Your task to perform on an android device: What's a good restaurant in New Jersey? Image 0: 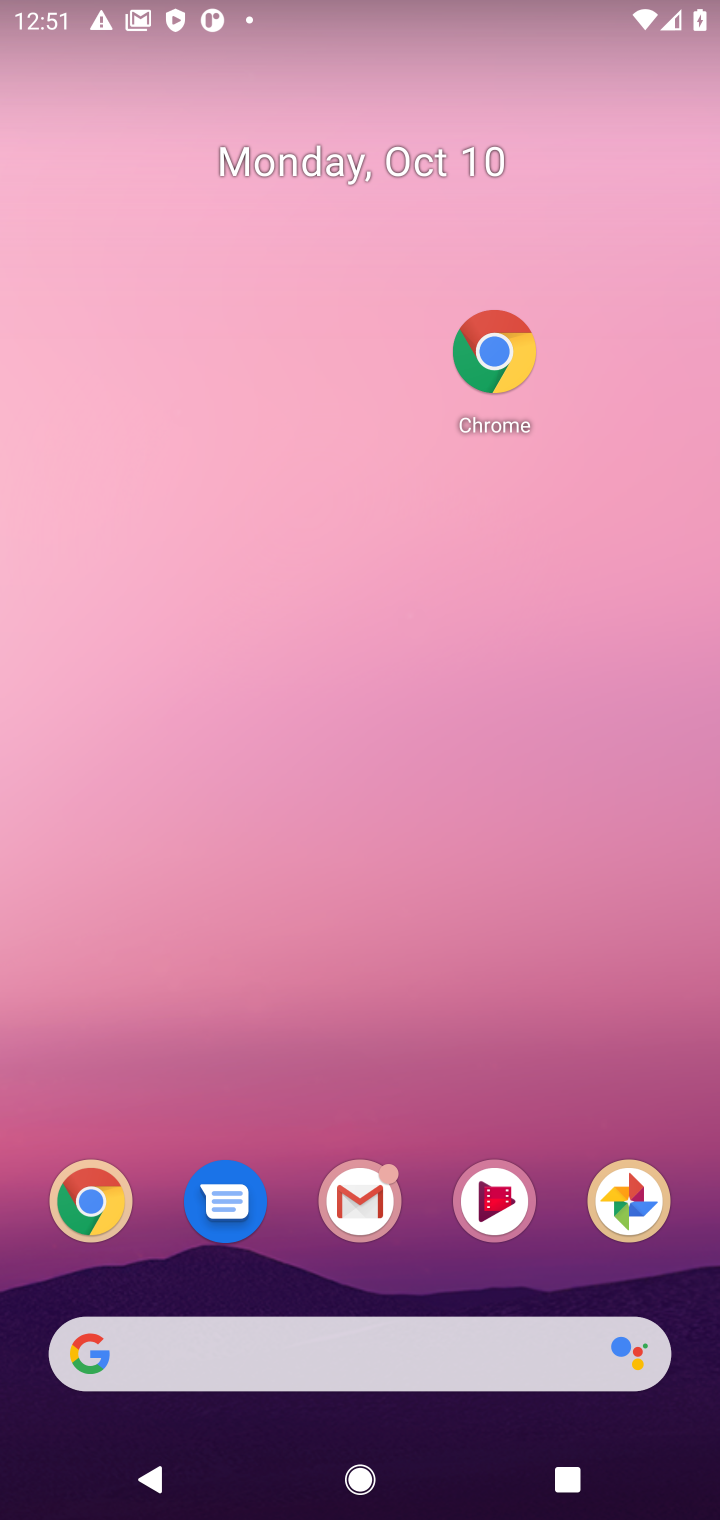
Step 0: click (72, 1200)
Your task to perform on an android device: What's a good restaurant in New Jersey? Image 1: 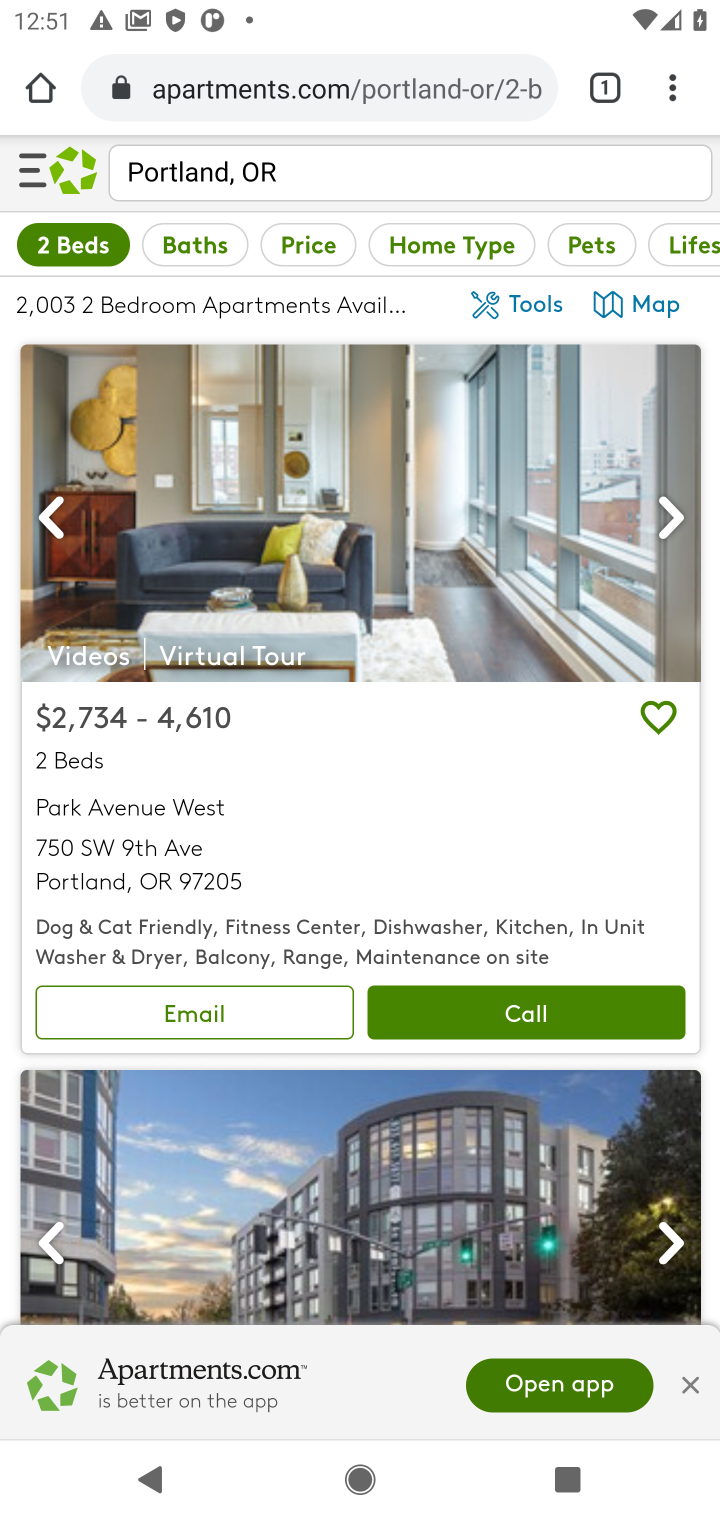
Step 1: click (259, 101)
Your task to perform on an android device: What's a good restaurant in New Jersey? Image 2: 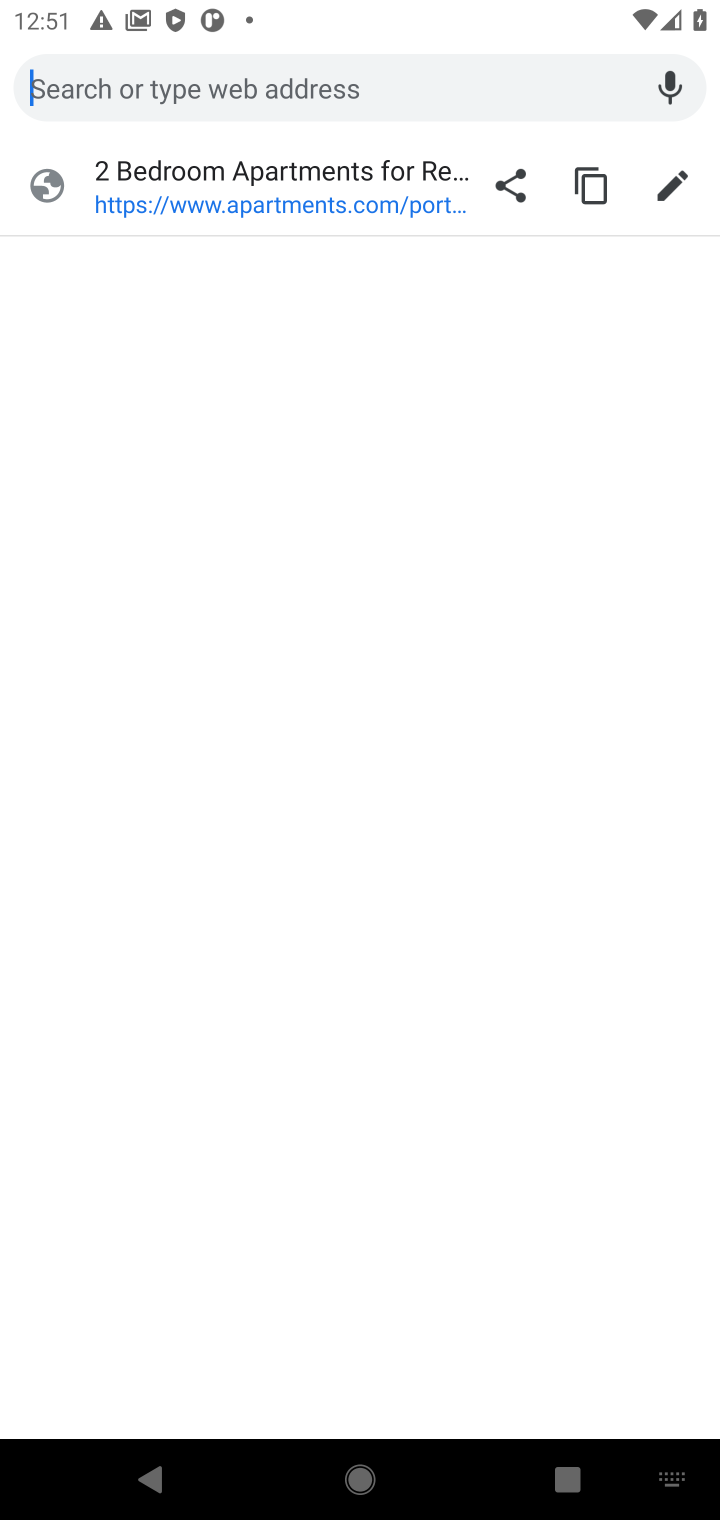
Step 2: type "a good restaurant in New Jersey"
Your task to perform on an android device: What's a good restaurant in New Jersey? Image 3: 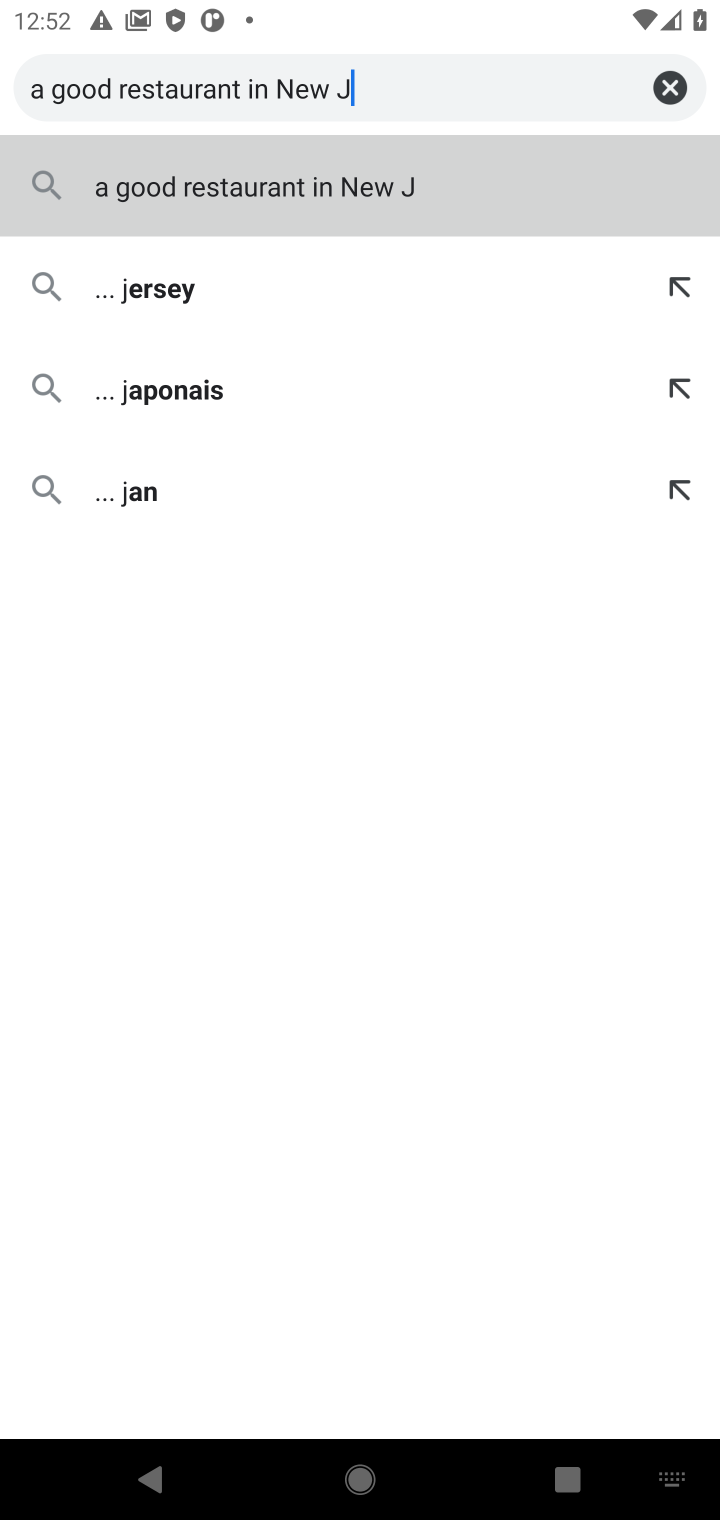
Step 3: type "ersey"
Your task to perform on an android device: What's a good restaurant in New Jersey? Image 4: 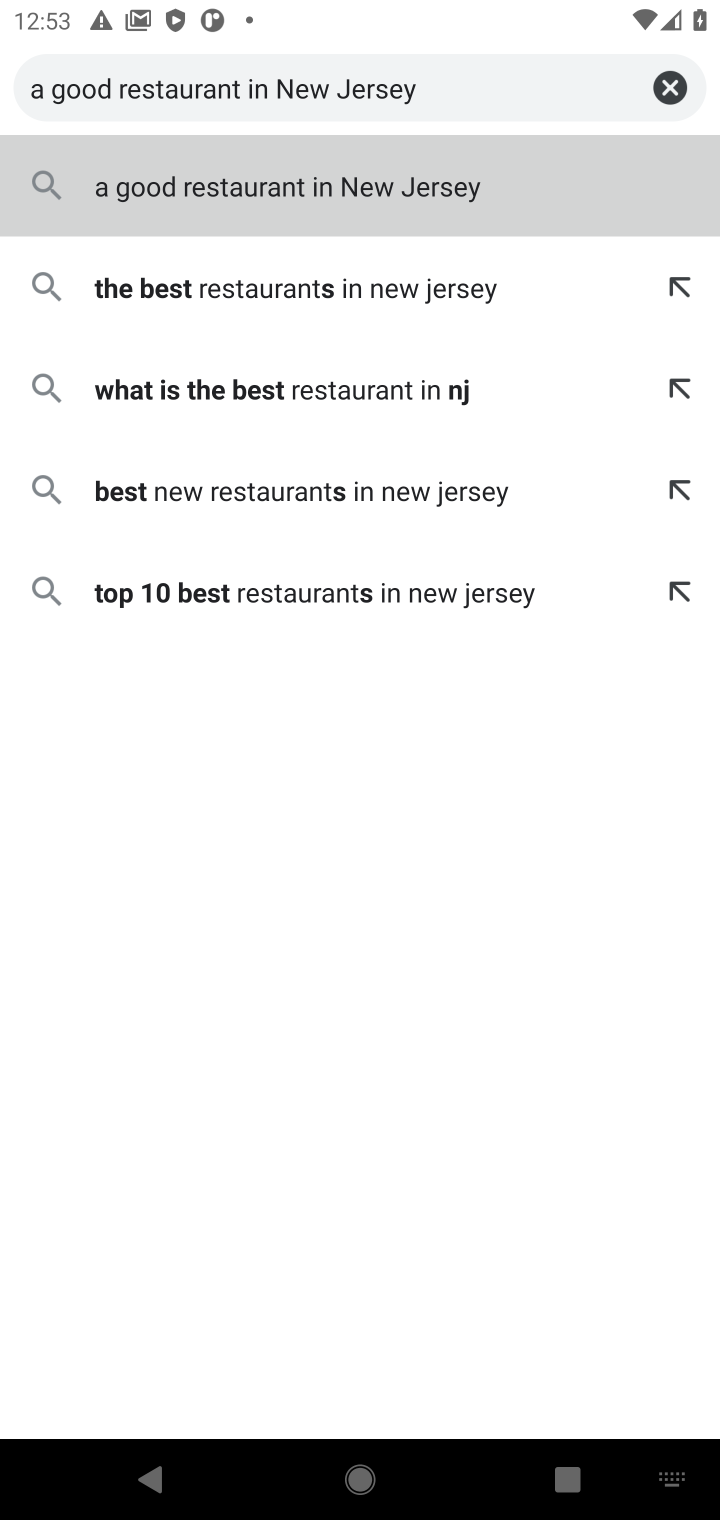
Step 4: click (286, 188)
Your task to perform on an android device: What's a good restaurant in New Jersey? Image 5: 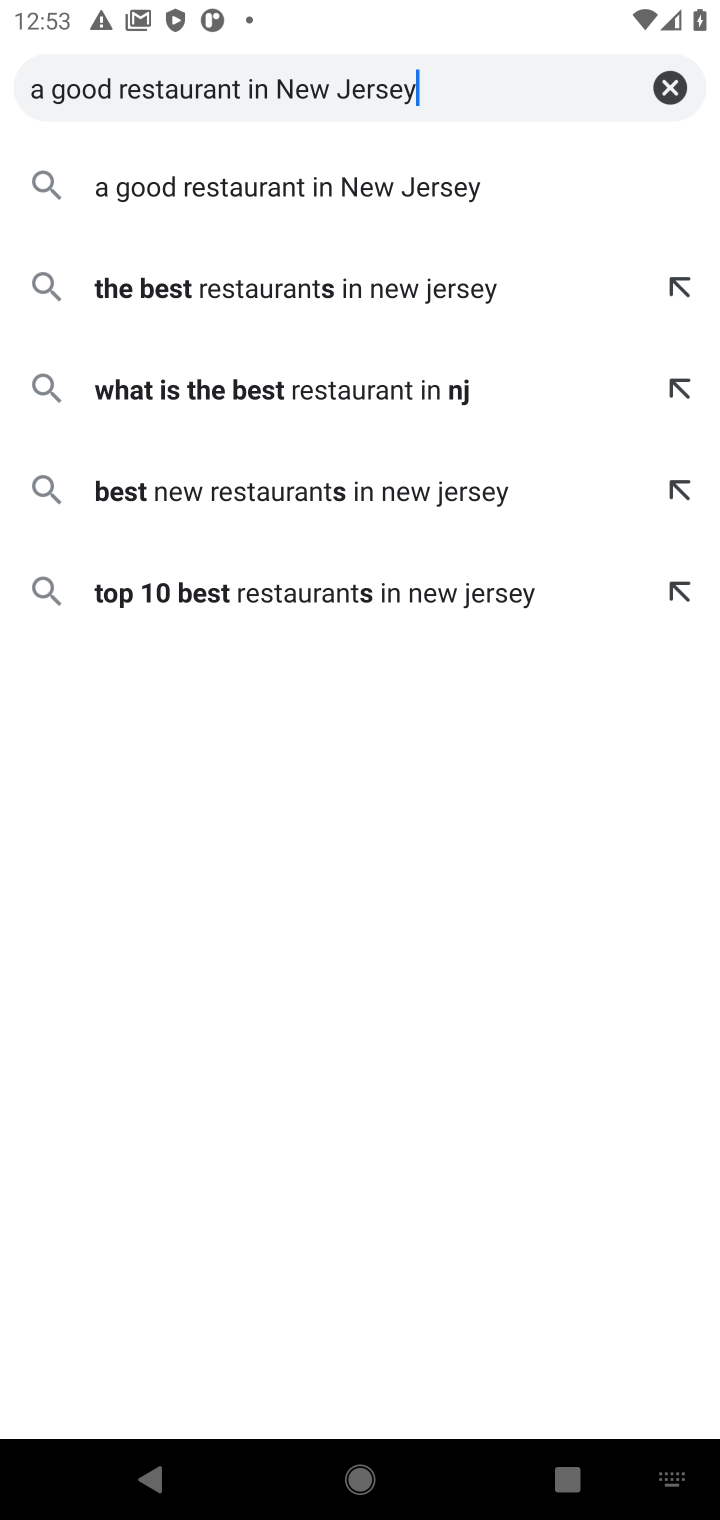
Step 5: click (337, 182)
Your task to perform on an android device: What's a good restaurant in New Jersey? Image 6: 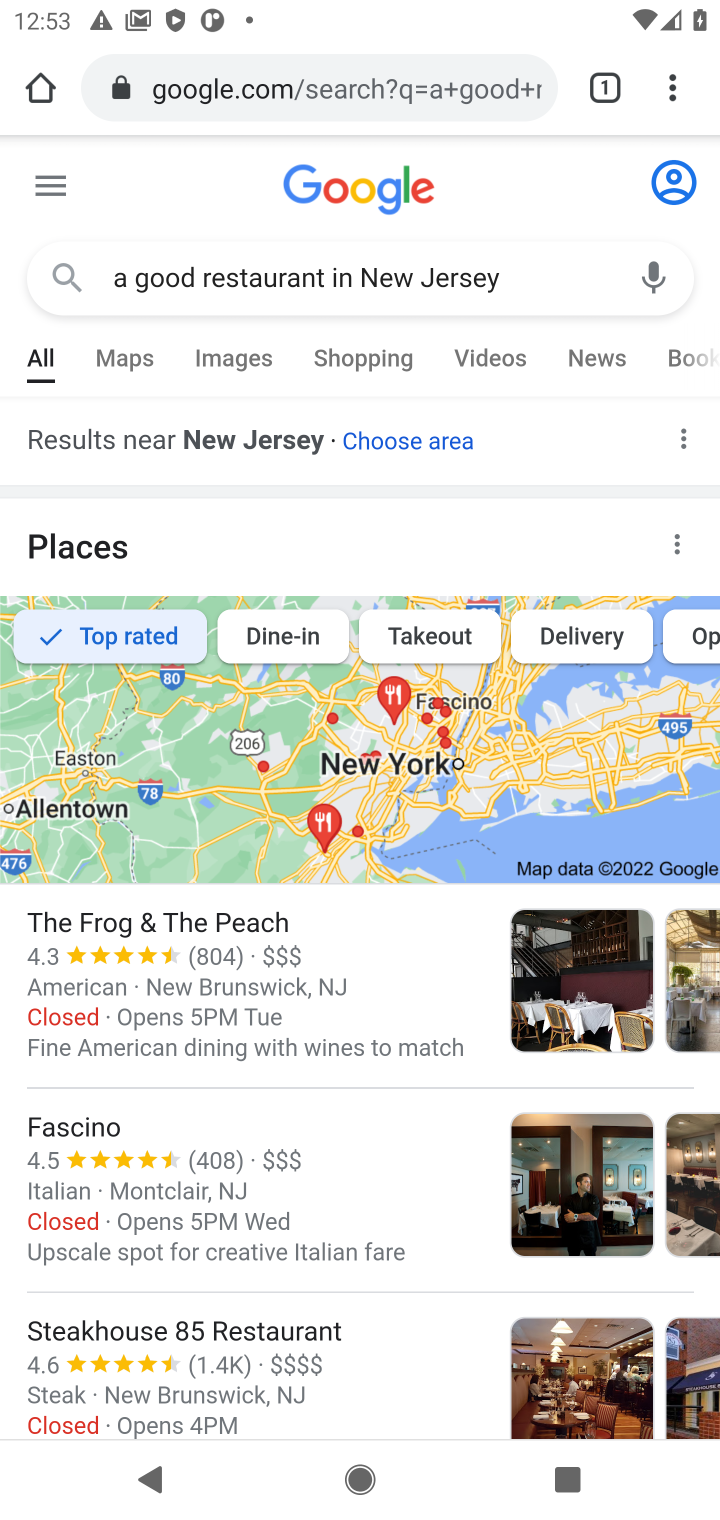
Step 6: task complete